Your task to perform on an android device: Go to network settings Image 0: 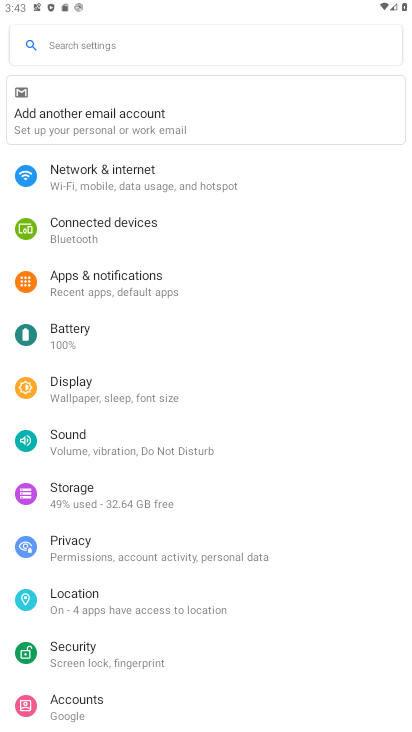
Step 0: click (72, 170)
Your task to perform on an android device: Go to network settings Image 1: 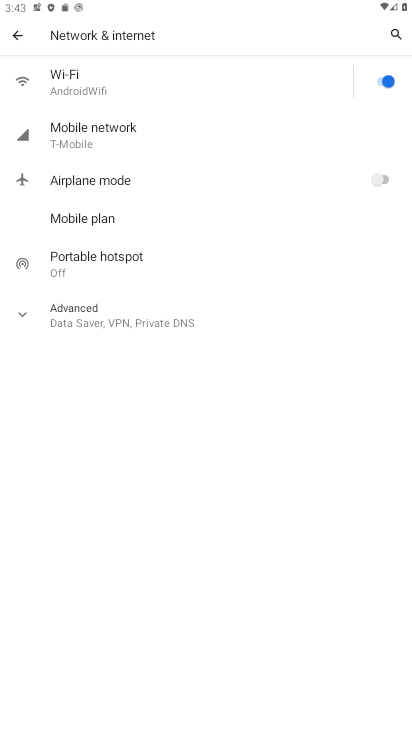
Step 1: click (84, 127)
Your task to perform on an android device: Go to network settings Image 2: 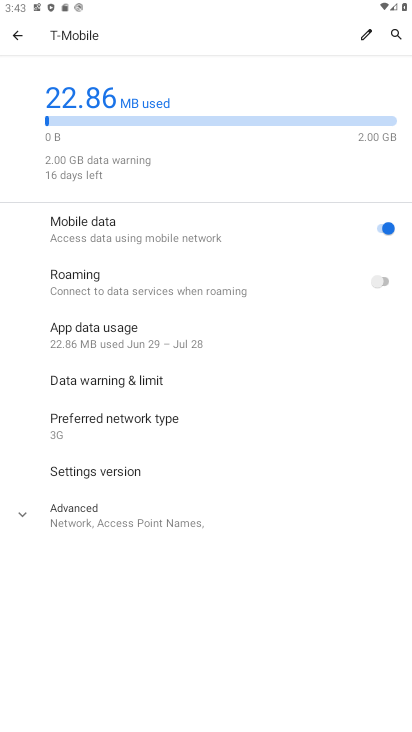
Step 2: task complete